Your task to perform on an android device: Go to battery settings Image 0: 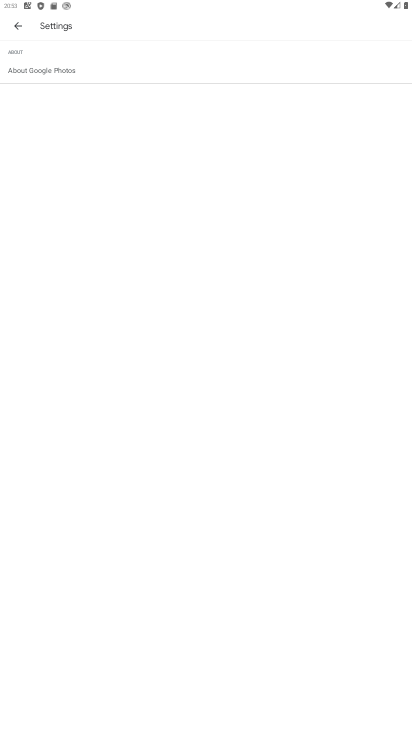
Step 0: press home button
Your task to perform on an android device: Go to battery settings Image 1: 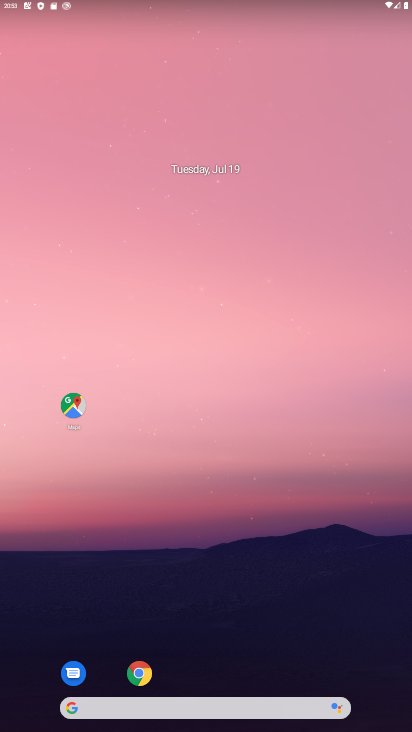
Step 1: drag from (227, 656) to (238, 3)
Your task to perform on an android device: Go to battery settings Image 2: 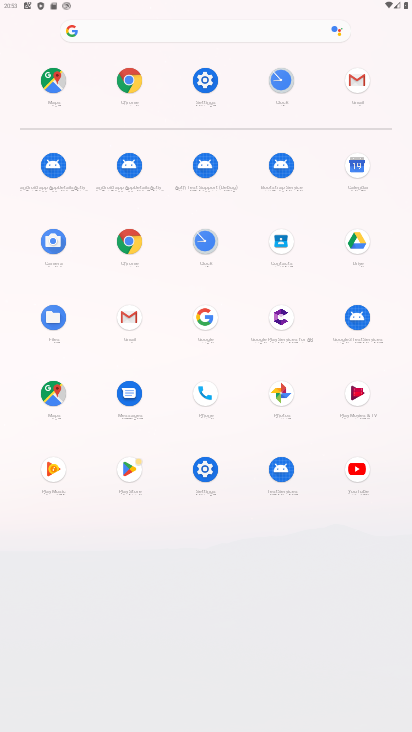
Step 2: click (205, 470)
Your task to perform on an android device: Go to battery settings Image 3: 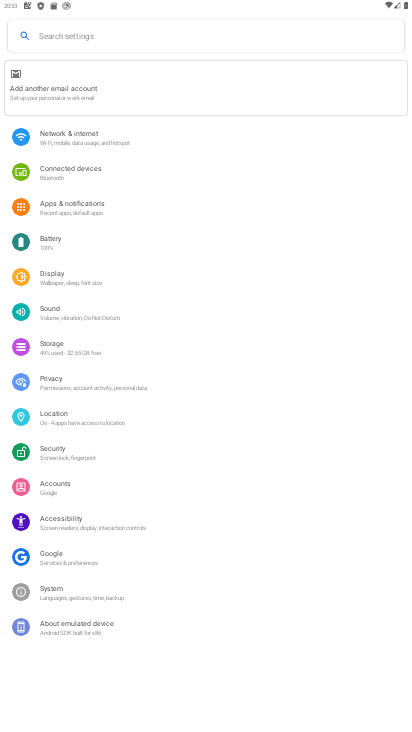
Step 3: click (65, 240)
Your task to perform on an android device: Go to battery settings Image 4: 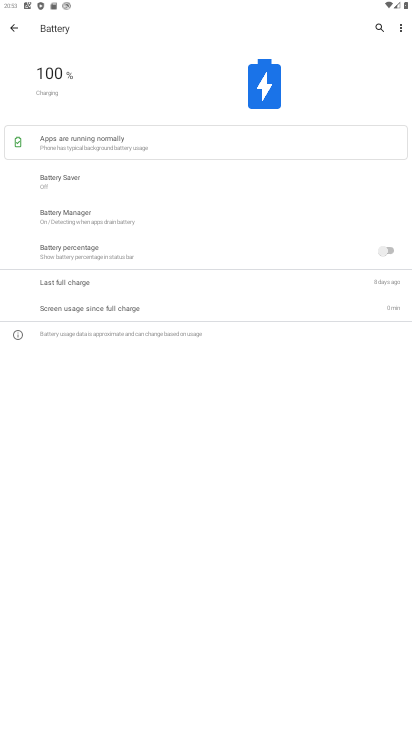
Step 4: task complete